Your task to perform on an android device: change the clock style Image 0: 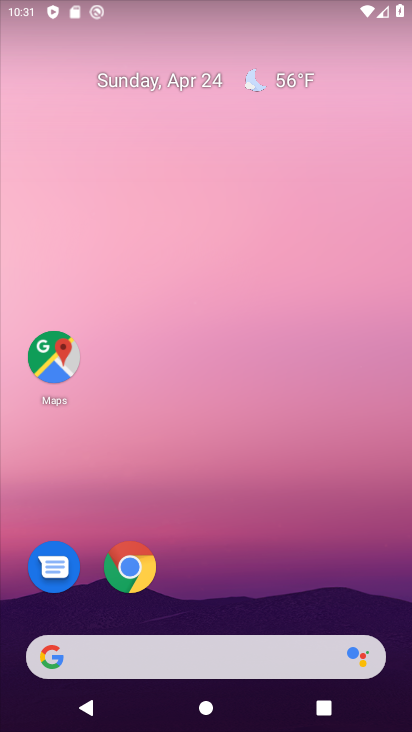
Step 0: drag from (382, 602) to (350, 175)
Your task to perform on an android device: change the clock style Image 1: 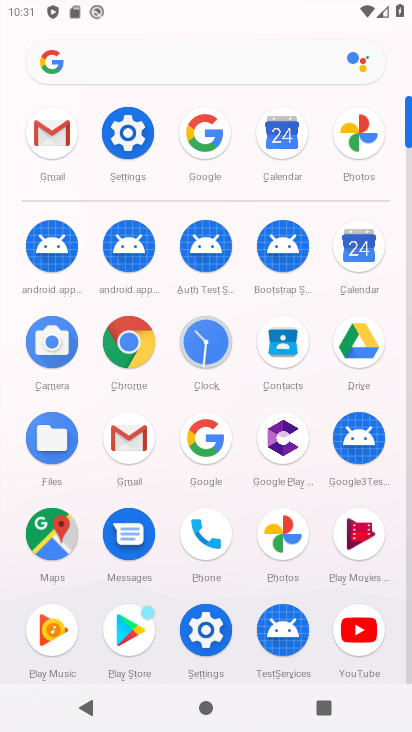
Step 1: click (205, 341)
Your task to perform on an android device: change the clock style Image 2: 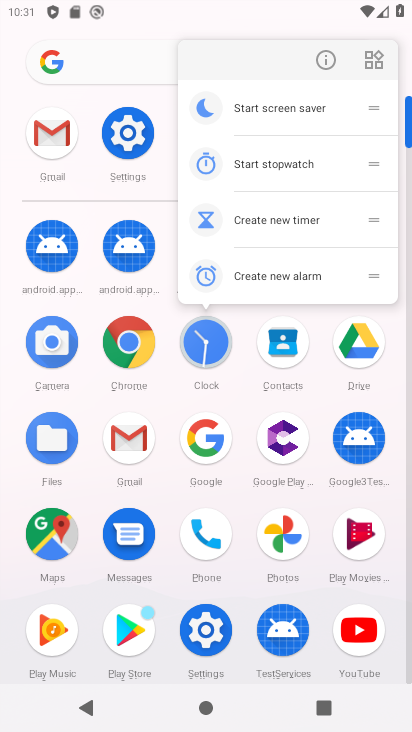
Step 2: click (206, 335)
Your task to perform on an android device: change the clock style Image 3: 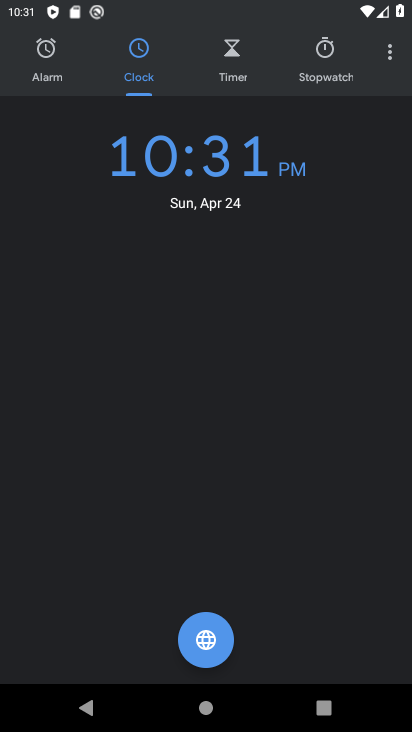
Step 3: click (391, 51)
Your task to perform on an android device: change the clock style Image 4: 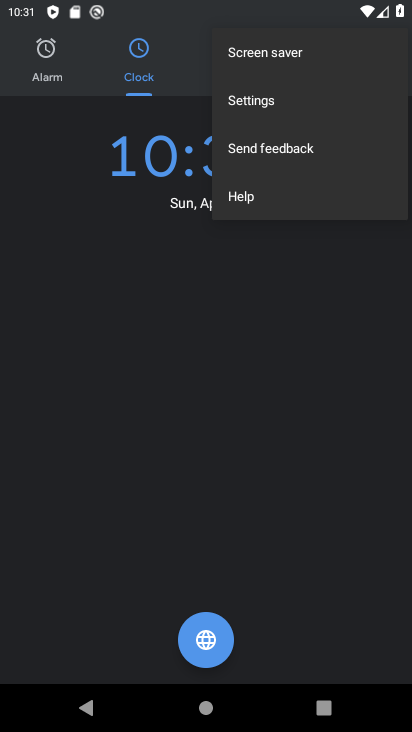
Step 4: click (242, 97)
Your task to perform on an android device: change the clock style Image 5: 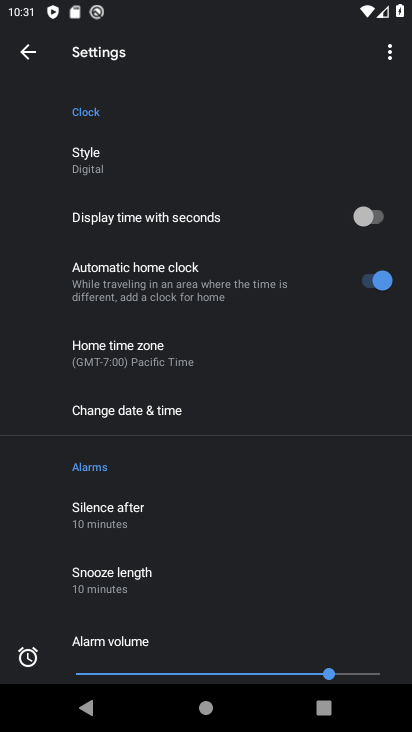
Step 5: click (95, 168)
Your task to perform on an android device: change the clock style Image 6: 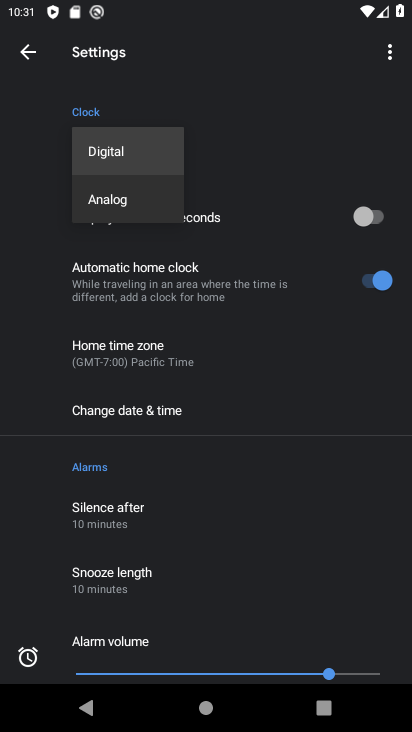
Step 6: click (133, 203)
Your task to perform on an android device: change the clock style Image 7: 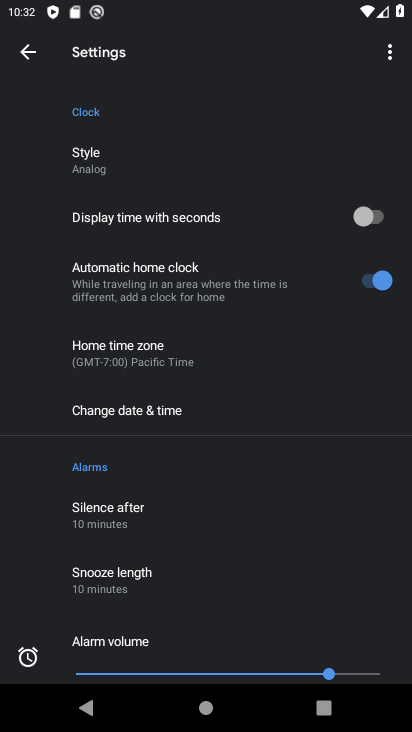
Step 7: task complete